Your task to perform on an android device: add a contact Image 0: 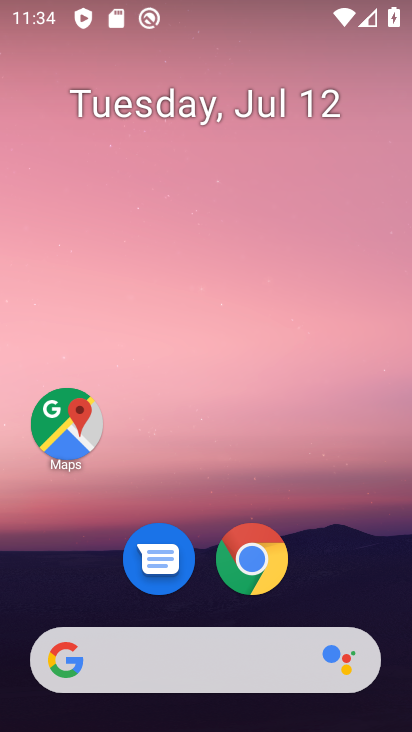
Step 0: drag from (251, 671) to (303, 174)
Your task to perform on an android device: add a contact Image 1: 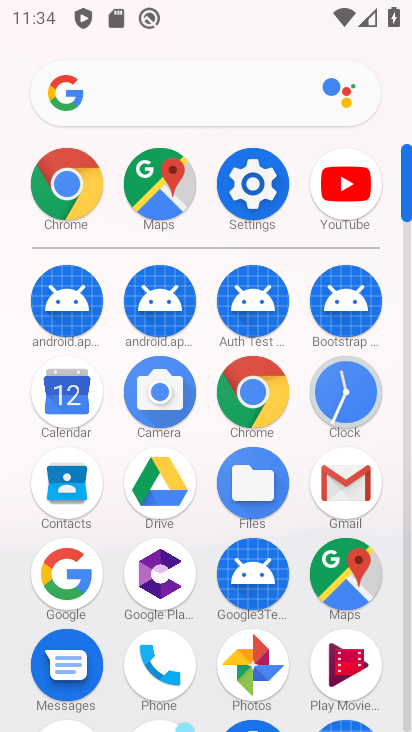
Step 1: drag from (234, 529) to (228, 230)
Your task to perform on an android device: add a contact Image 2: 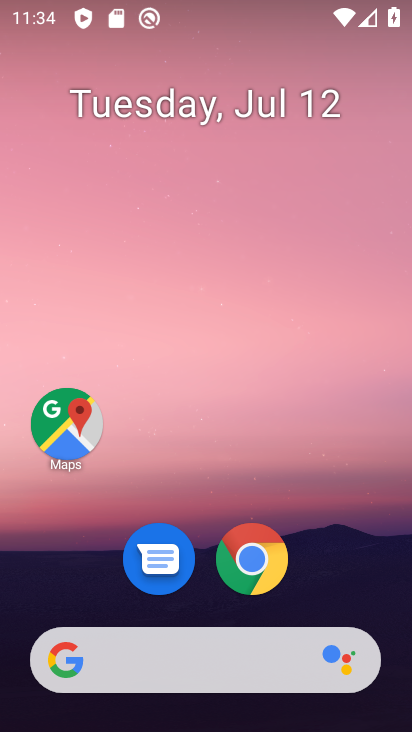
Step 2: drag from (202, 666) to (251, 141)
Your task to perform on an android device: add a contact Image 3: 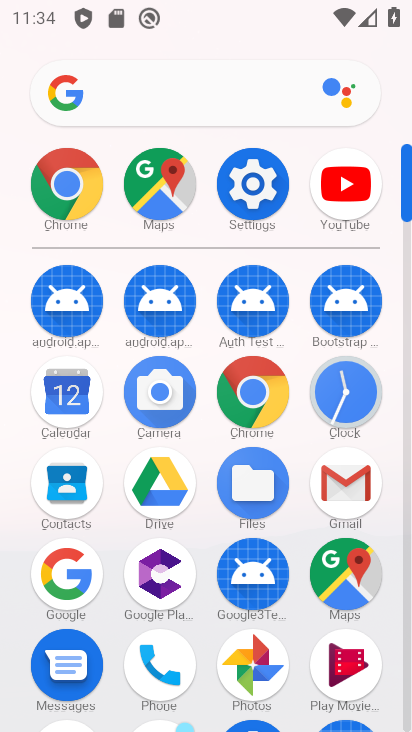
Step 3: click (94, 509)
Your task to perform on an android device: add a contact Image 4: 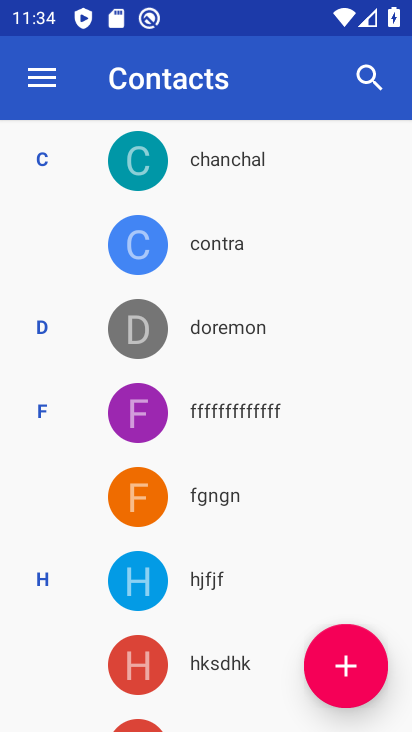
Step 4: click (336, 671)
Your task to perform on an android device: add a contact Image 5: 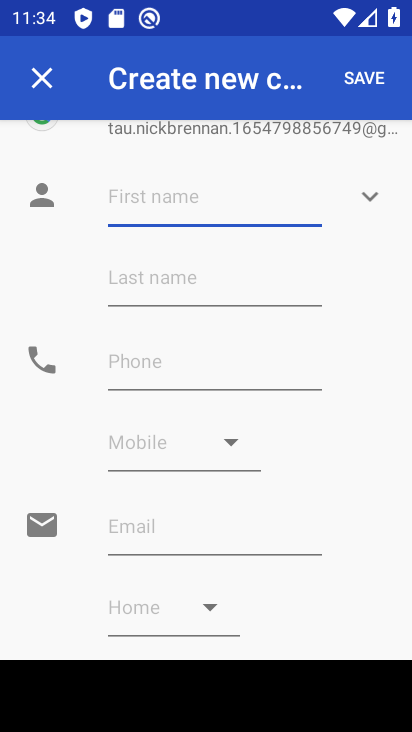
Step 5: type "ktrd"
Your task to perform on an android device: add a contact Image 6: 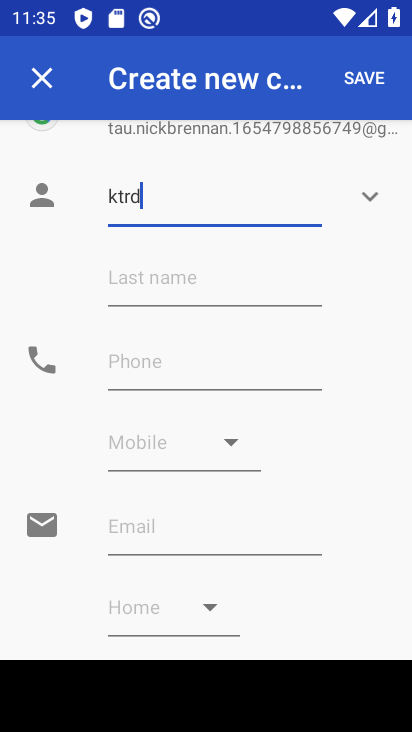
Step 6: click (189, 361)
Your task to perform on an android device: add a contact Image 7: 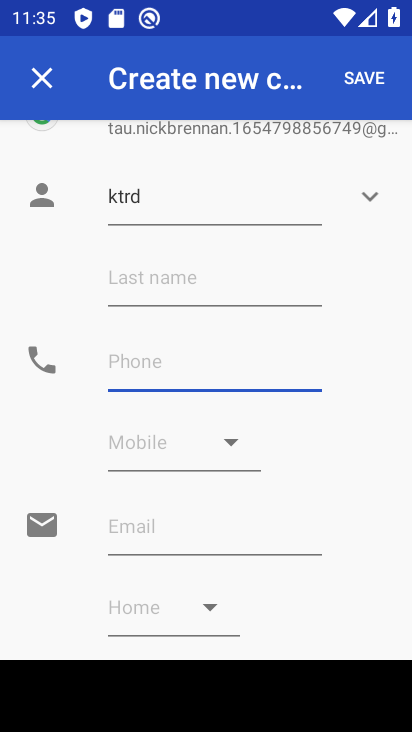
Step 7: type "985745"
Your task to perform on an android device: add a contact Image 8: 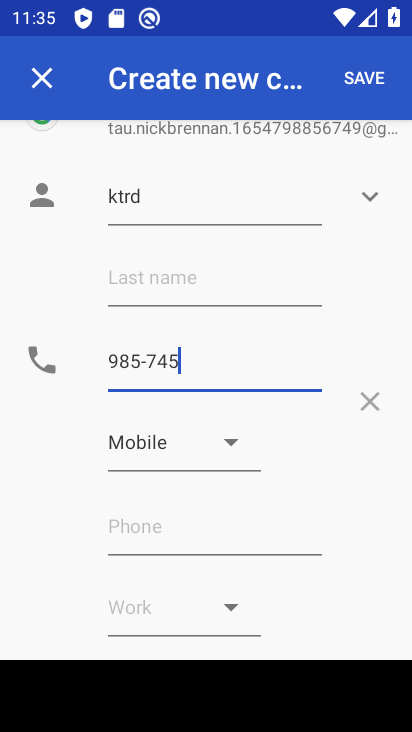
Step 8: click (365, 71)
Your task to perform on an android device: add a contact Image 9: 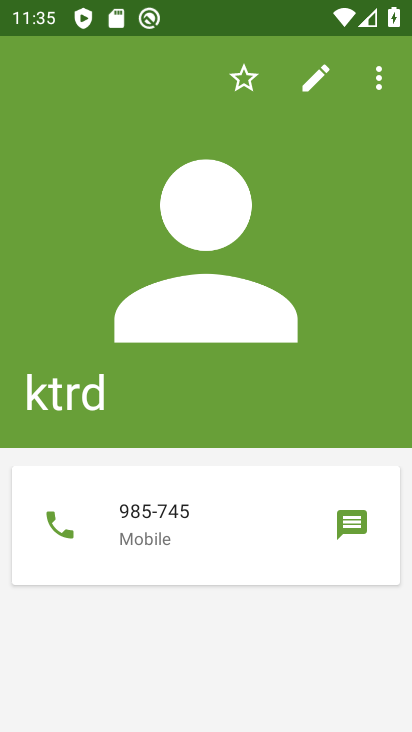
Step 9: task complete